Your task to perform on an android device: delete location history Image 0: 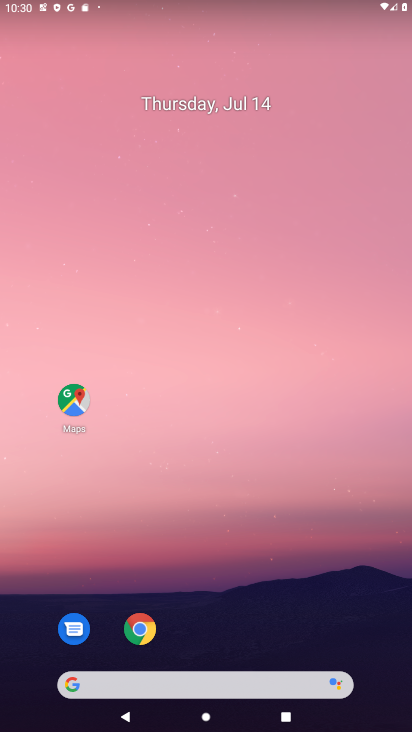
Step 0: drag from (38, 613) to (277, 132)
Your task to perform on an android device: delete location history Image 1: 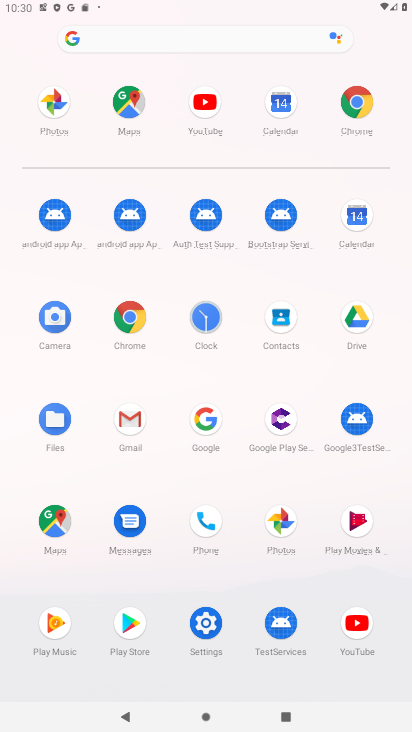
Step 1: click (210, 624)
Your task to perform on an android device: delete location history Image 2: 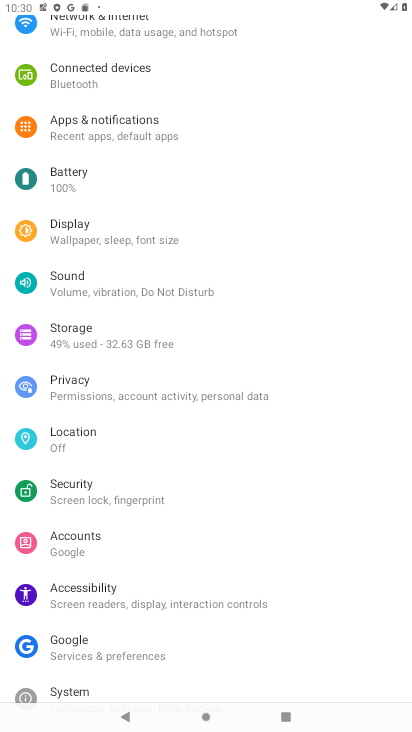
Step 2: click (37, 451)
Your task to perform on an android device: delete location history Image 3: 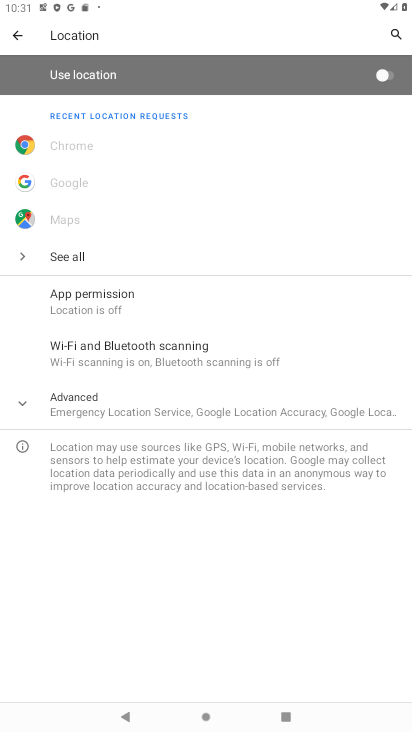
Step 3: click (254, 412)
Your task to perform on an android device: delete location history Image 4: 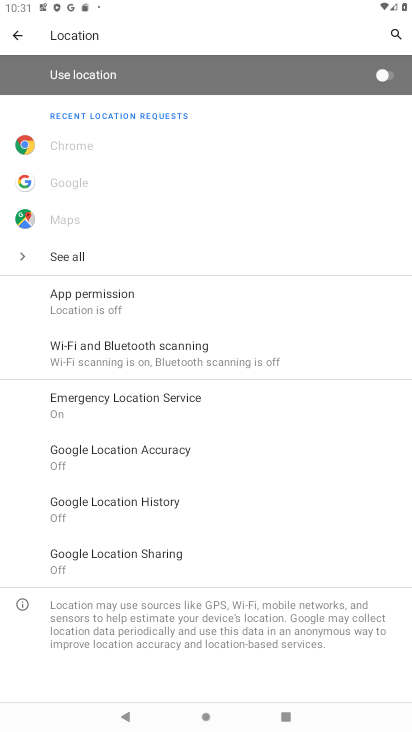
Step 4: click (193, 505)
Your task to perform on an android device: delete location history Image 5: 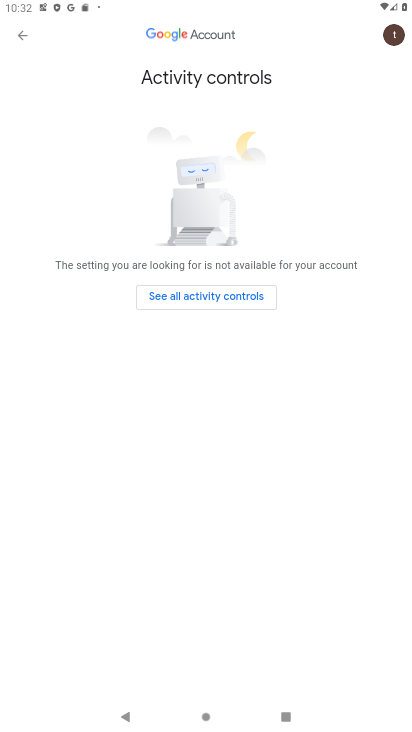
Step 5: task complete